Your task to perform on an android device: Open eBay Image 0: 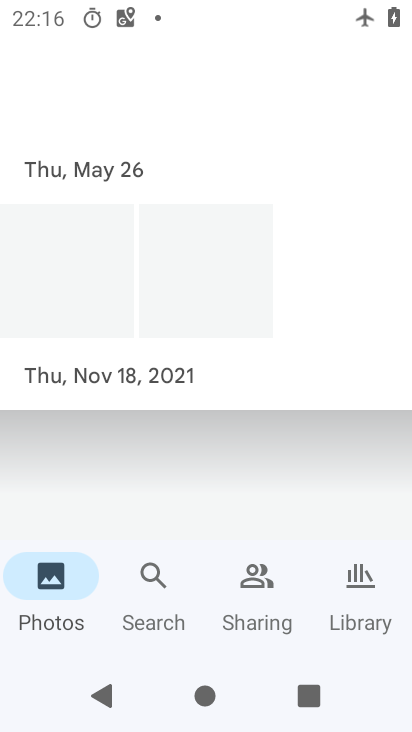
Step 0: drag from (211, 559) to (277, 83)
Your task to perform on an android device: Open eBay Image 1: 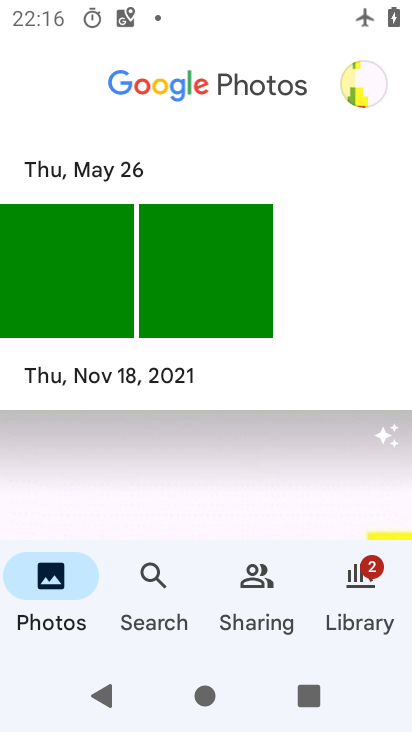
Step 1: press home button
Your task to perform on an android device: Open eBay Image 2: 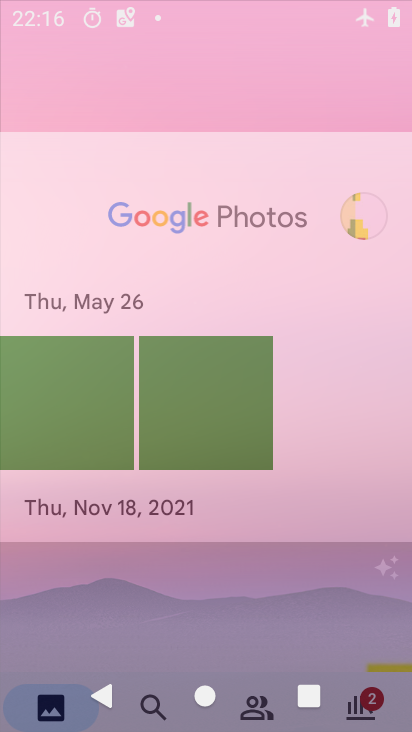
Step 2: drag from (185, 562) to (258, 5)
Your task to perform on an android device: Open eBay Image 3: 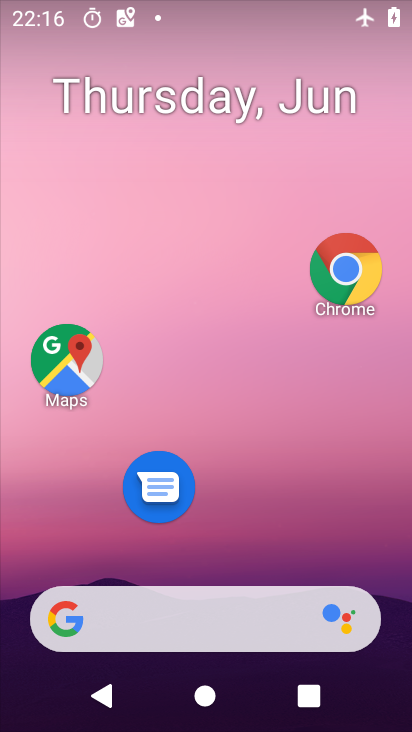
Step 3: drag from (210, 541) to (241, 128)
Your task to perform on an android device: Open eBay Image 4: 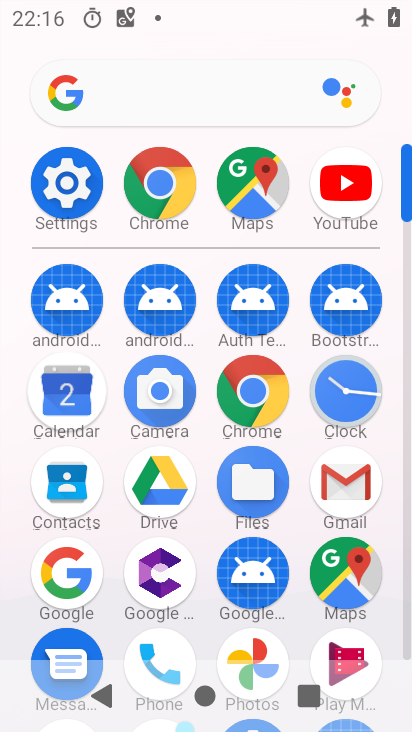
Step 4: click (153, 87)
Your task to perform on an android device: Open eBay Image 5: 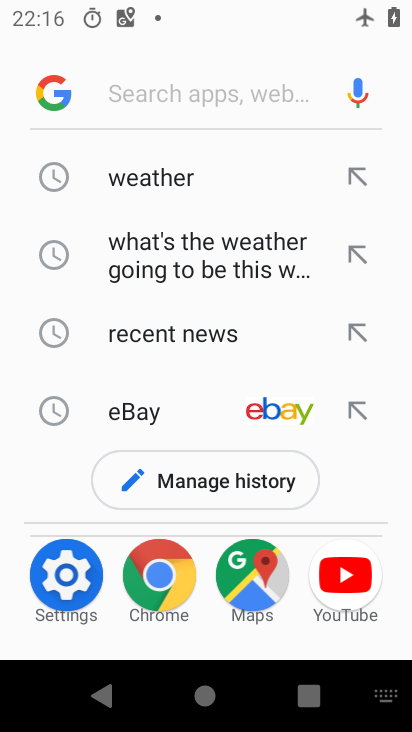
Step 5: click (183, 409)
Your task to perform on an android device: Open eBay Image 6: 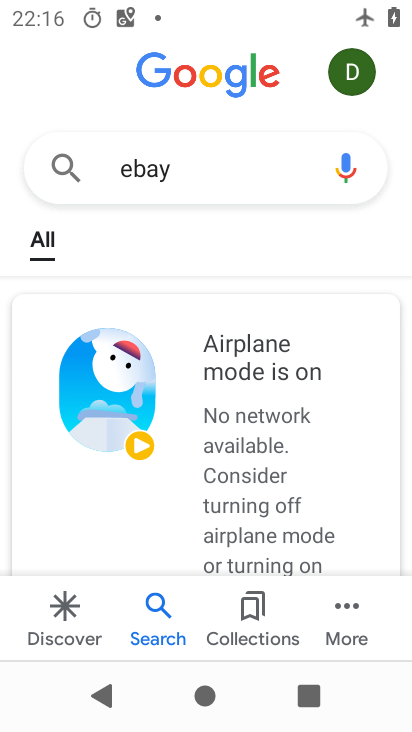
Step 6: task complete